Your task to perform on an android device: turn smart compose on in the gmail app Image 0: 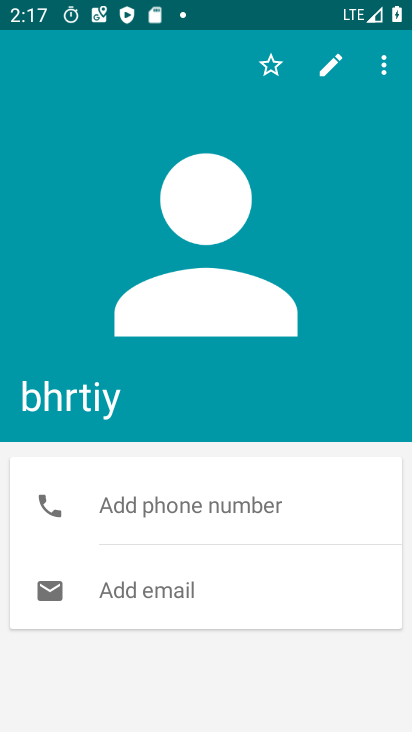
Step 0: press home button
Your task to perform on an android device: turn smart compose on in the gmail app Image 1: 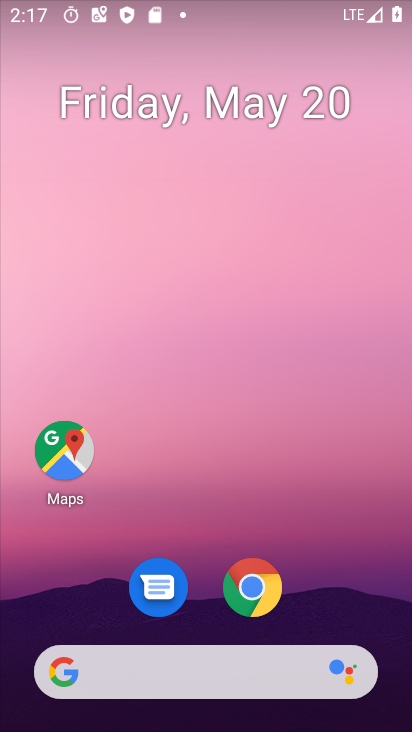
Step 1: drag from (327, 575) to (262, 94)
Your task to perform on an android device: turn smart compose on in the gmail app Image 2: 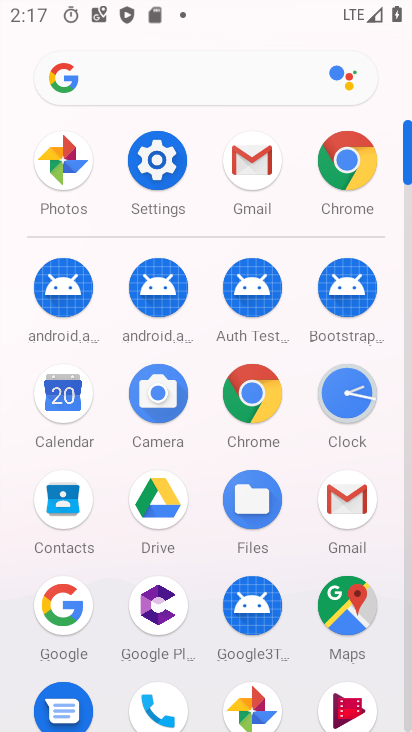
Step 2: click (244, 168)
Your task to perform on an android device: turn smart compose on in the gmail app Image 3: 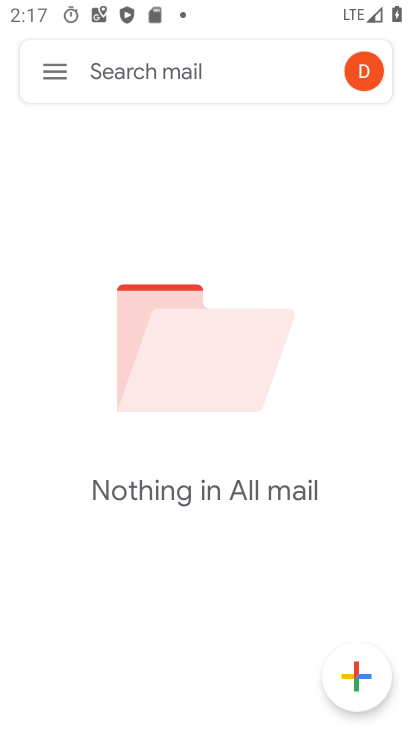
Step 3: click (54, 76)
Your task to perform on an android device: turn smart compose on in the gmail app Image 4: 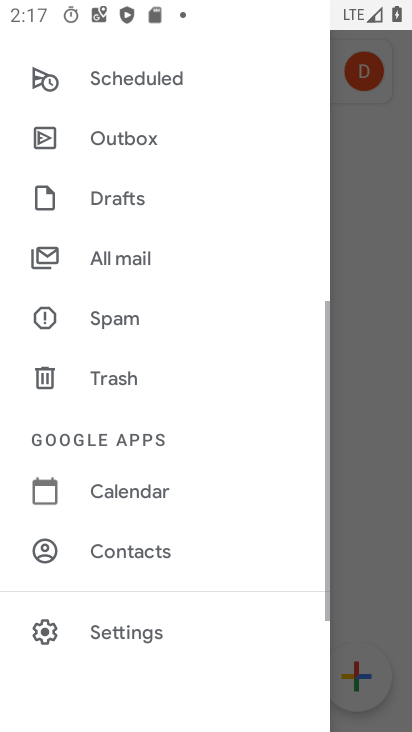
Step 4: drag from (214, 608) to (213, 99)
Your task to perform on an android device: turn smart compose on in the gmail app Image 5: 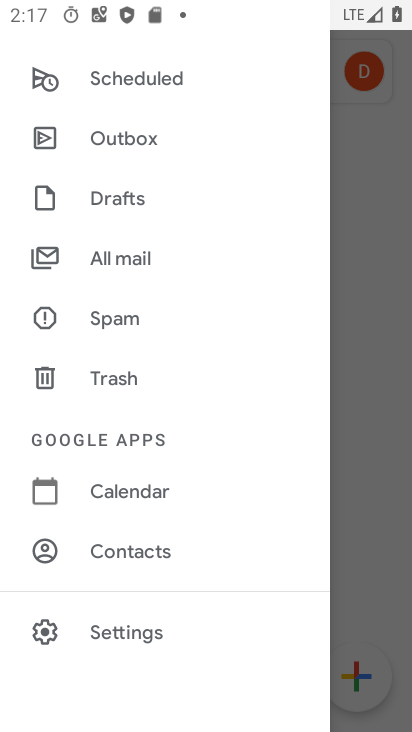
Step 5: drag from (103, 272) to (120, 708)
Your task to perform on an android device: turn smart compose on in the gmail app Image 6: 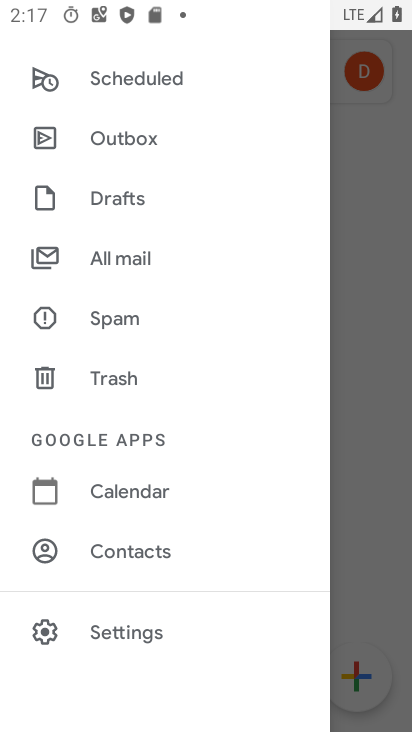
Step 6: click (136, 640)
Your task to perform on an android device: turn smart compose on in the gmail app Image 7: 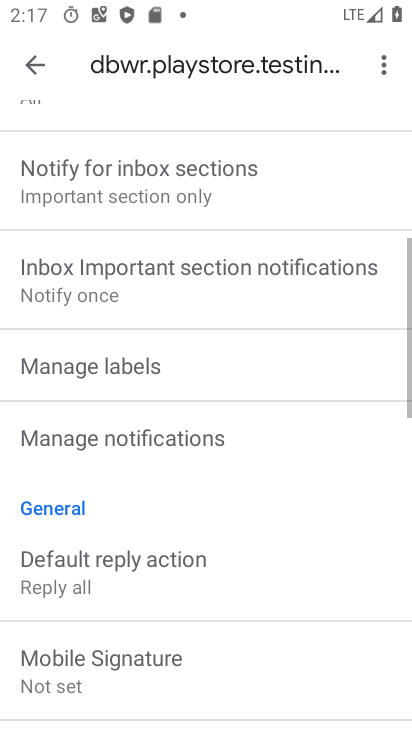
Step 7: task complete